Your task to perform on an android device: open a bookmark in the chrome app Image 0: 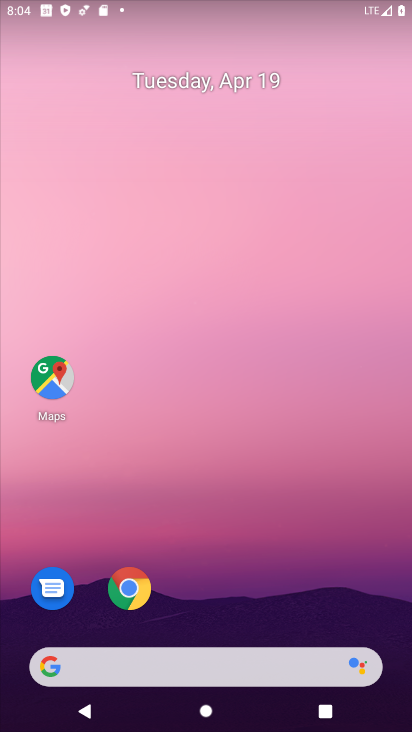
Step 0: click (132, 585)
Your task to perform on an android device: open a bookmark in the chrome app Image 1: 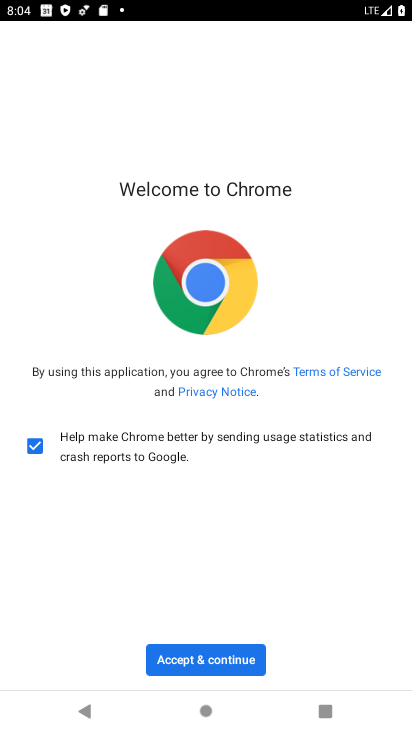
Step 1: click (199, 656)
Your task to perform on an android device: open a bookmark in the chrome app Image 2: 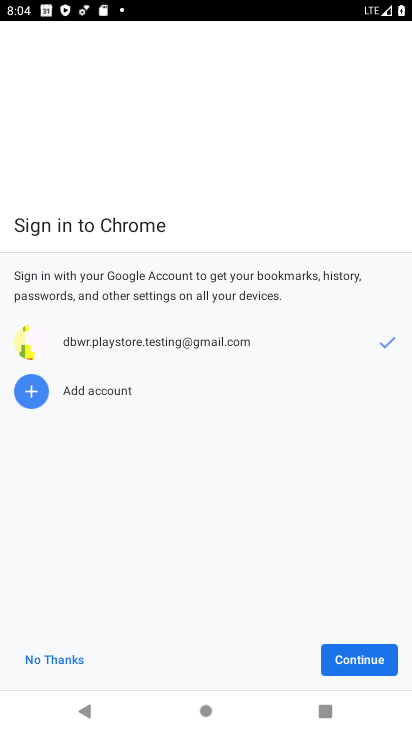
Step 2: click (367, 655)
Your task to perform on an android device: open a bookmark in the chrome app Image 3: 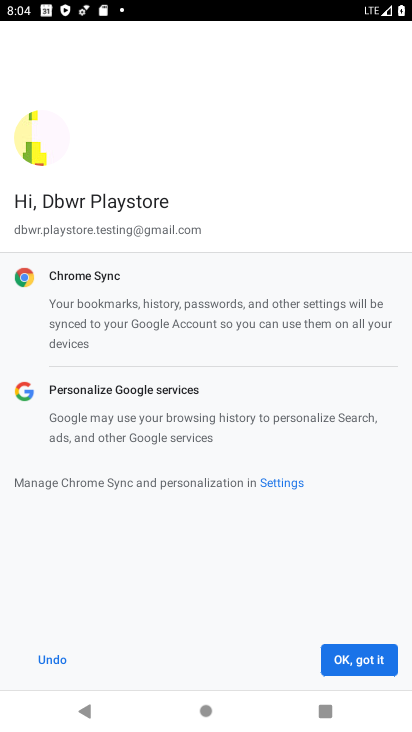
Step 3: click (367, 655)
Your task to perform on an android device: open a bookmark in the chrome app Image 4: 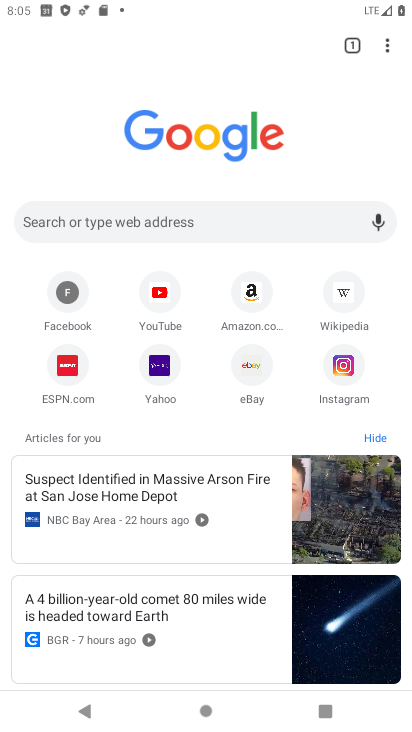
Step 4: click (387, 48)
Your task to perform on an android device: open a bookmark in the chrome app Image 5: 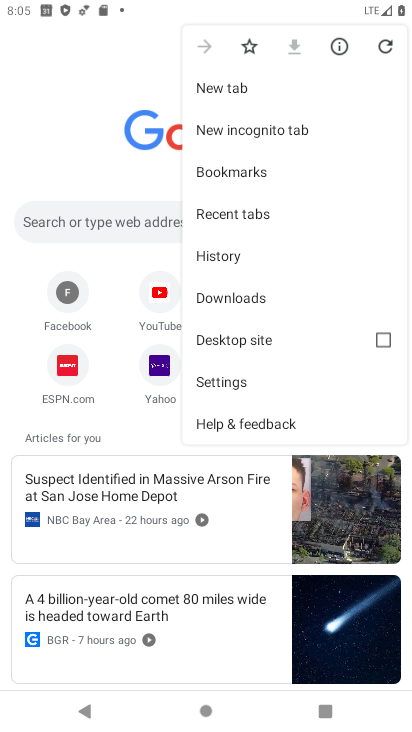
Step 5: click (242, 172)
Your task to perform on an android device: open a bookmark in the chrome app Image 6: 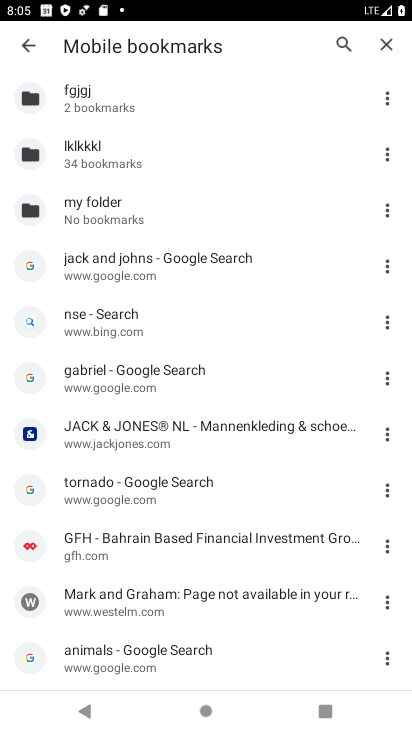
Step 6: click (124, 432)
Your task to perform on an android device: open a bookmark in the chrome app Image 7: 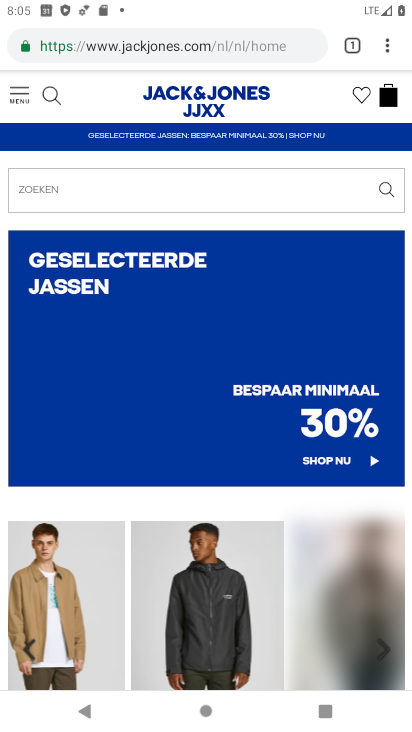
Step 7: task complete